Your task to perform on an android device: When is my next meeting? Image 0: 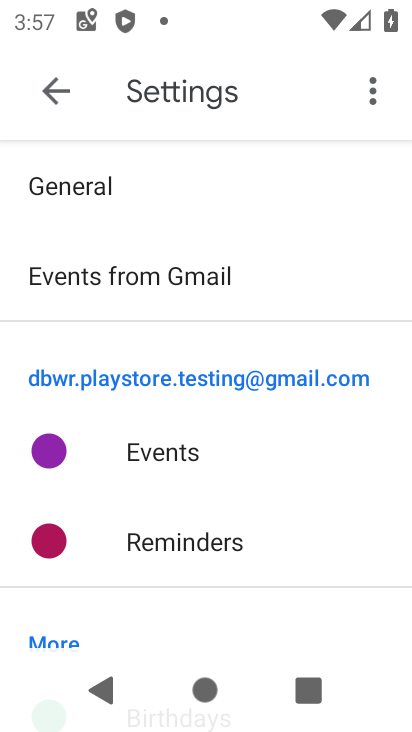
Step 0: task complete